Your task to perform on an android device: check data usage Image 0: 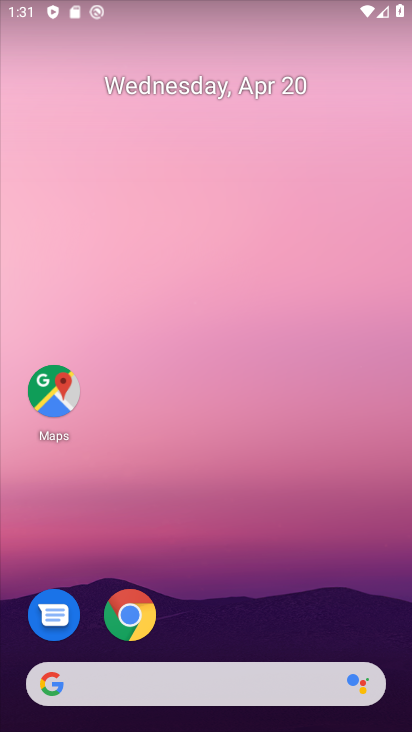
Step 0: drag from (225, 639) to (354, 14)
Your task to perform on an android device: check data usage Image 1: 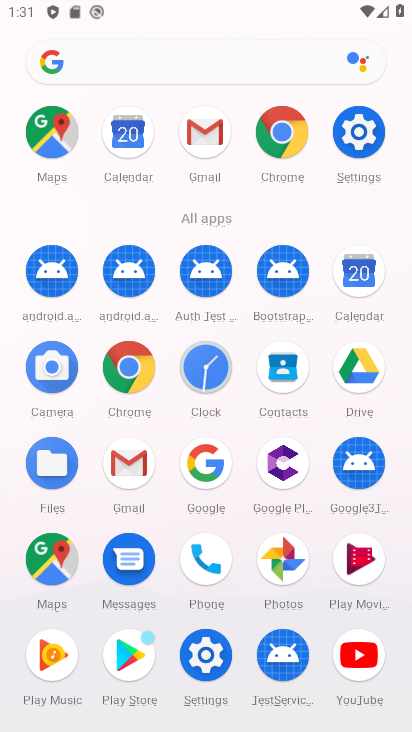
Step 1: click (356, 139)
Your task to perform on an android device: check data usage Image 2: 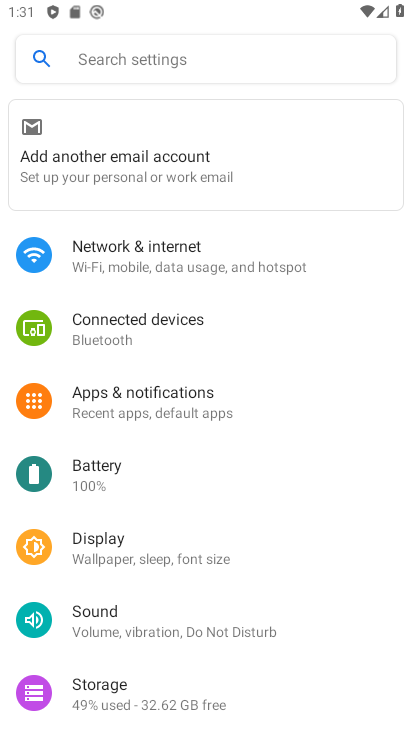
Step 2: click (87, 245)
Your task to perform on an android device: check data usage Image 3: 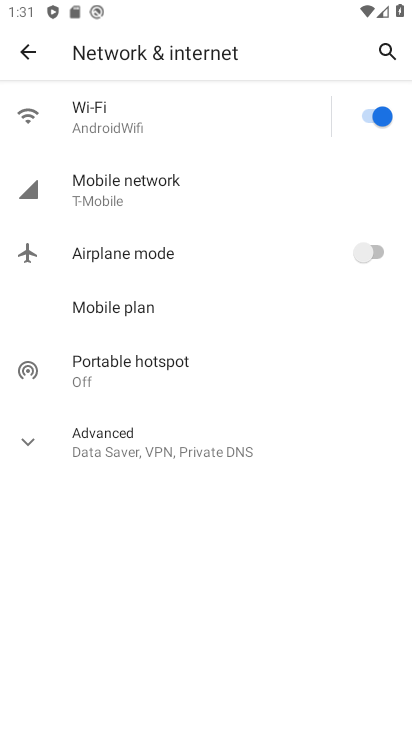
Step 3: click (89, 204)
Your task to perform on an android device: check data usage Image 4: 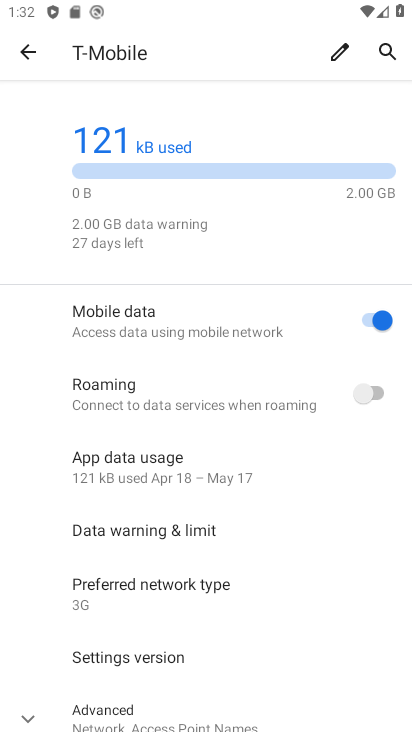
Step 4: click (104, 455)
Your task to perform on an android device: check data usage Image 5: 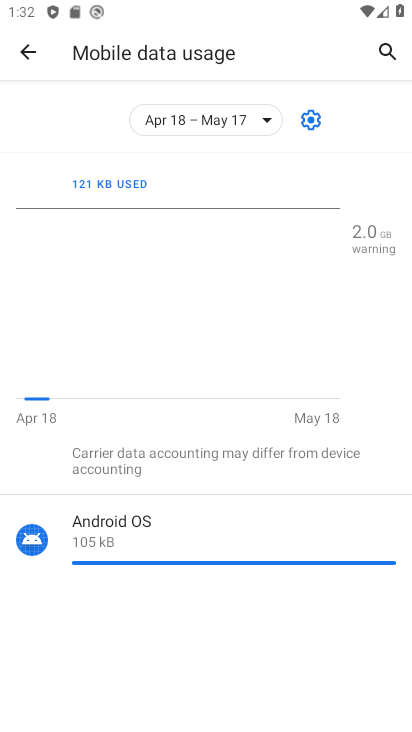
Step 5: task complete